Your task to perform on an android device: Open the web browser Image 0: 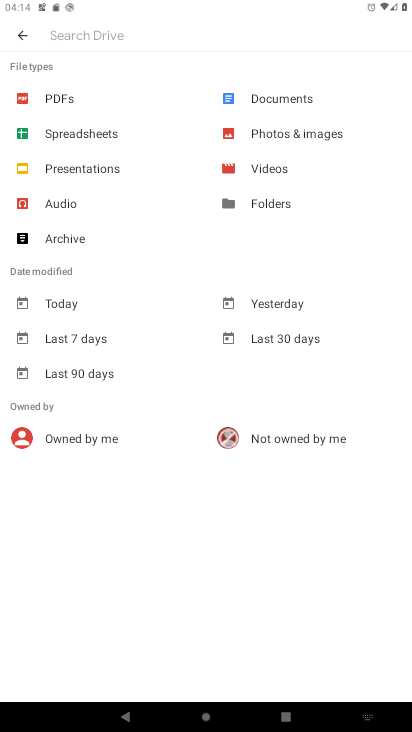
Step 0: press home button
Your task to perform on an android device: Open the web browser Image 1: 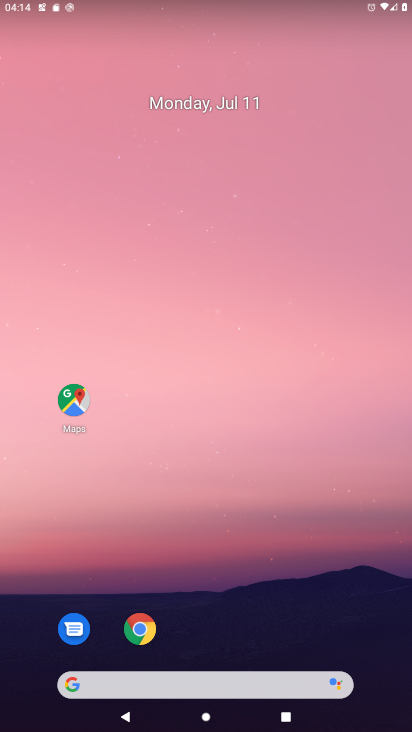
Step 1: click (150, 629)
Your task to perform on an android device: Open the web browser Image 2: 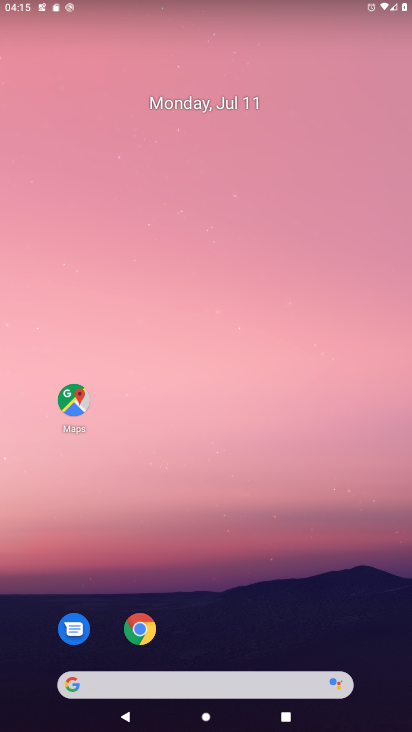
Step 2: click (144, 628)
Your task to perform on an android device: Open the web browser Image 3: 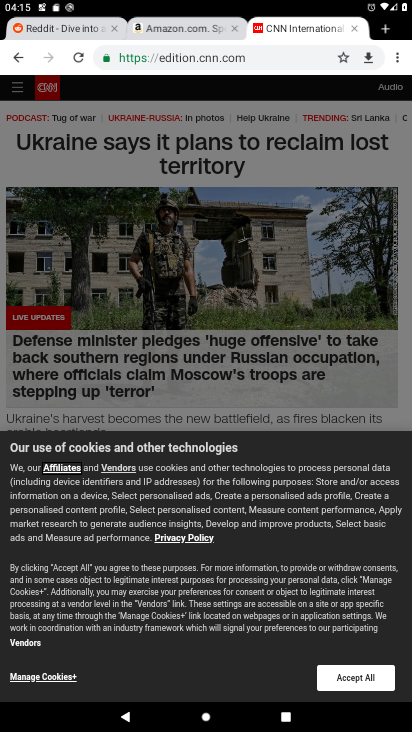
Step 3: task complete